Your task to perform on an android device: Check the weather Image 0: 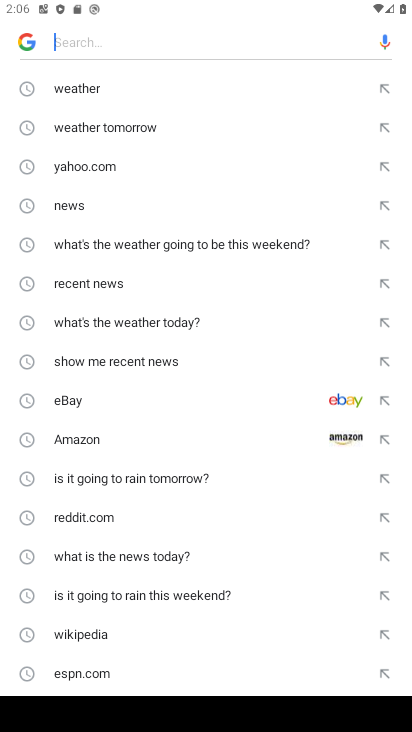
Step 0: press back button
Your task to perform on an android device: Check the weather Image 1: 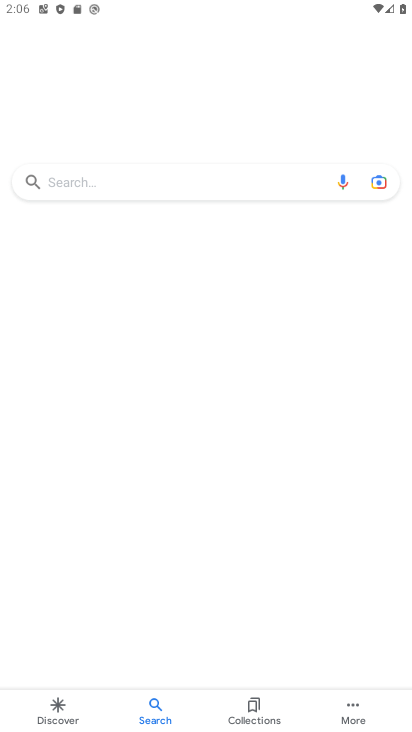
Step 1: click (113, 178)
Your task to perform on an android device: Check the weather Image 2: 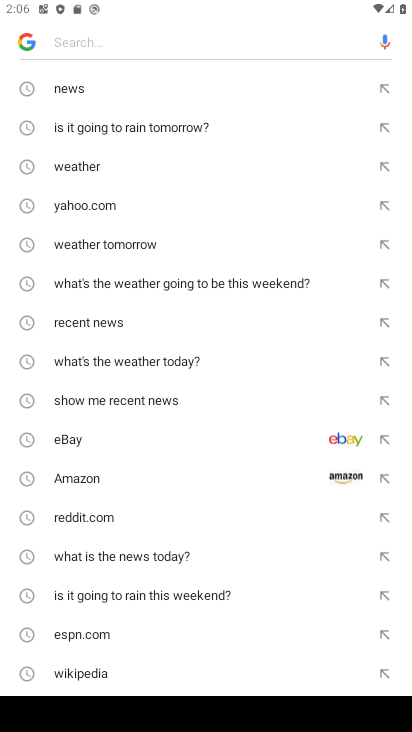
Step 2: click (103, 159)
Your task to perform on an android device: Check the weather Image 3: 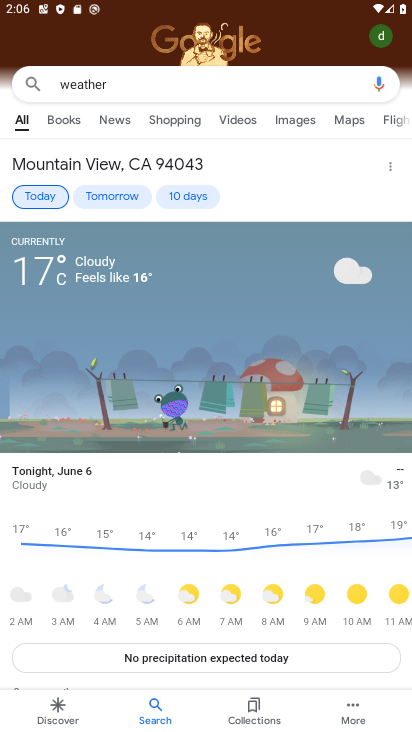
Step 3: task complete